Your task to perform on an android device: Is it going to rain today? Image 0: 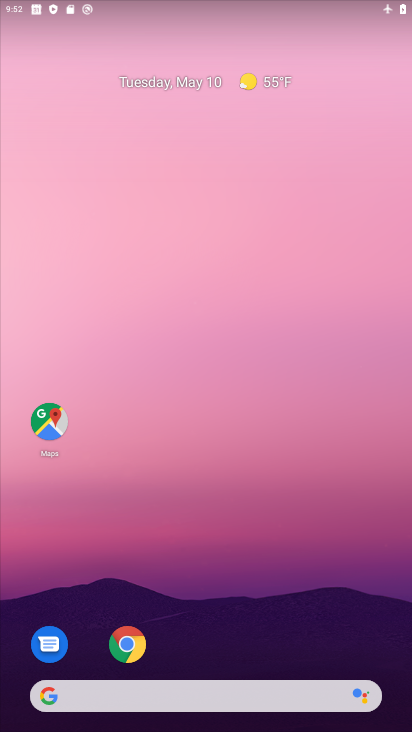
Step 0: drag from (334, 621) to (290, 332)
Your task to perform on an android device: Is it going to rain today? Image 1: 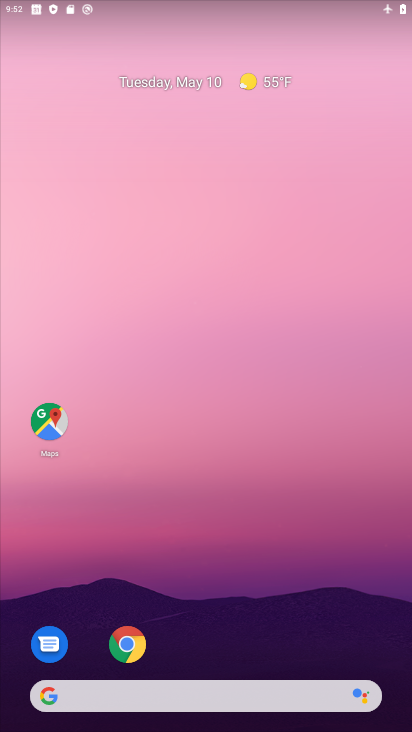
Step 1: drag from (300, 625) to (308, 351)
Your task to perform on an android device: Is it going to rain today? Image 2: 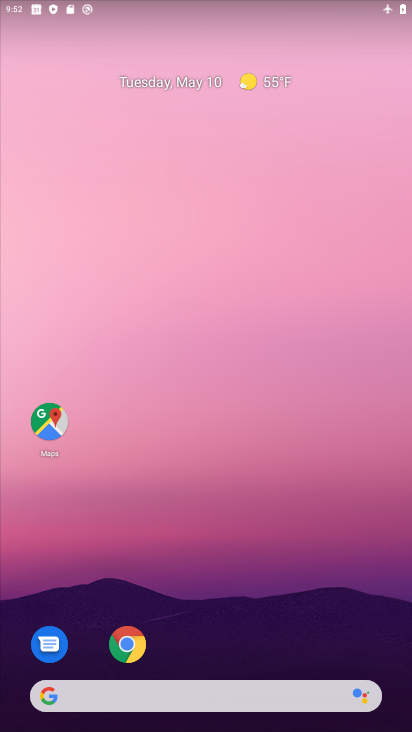
Step 2: drag from (254, 501) to (294, 230)
Your task to perform on an android device: Is it going to rain today? Image 3: 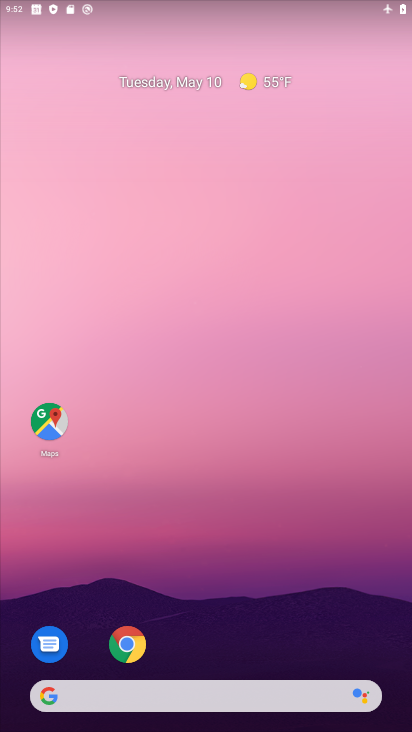
Step 3: drag from (269, 653) to (298, 141)
Your task to perform on an android device: Is it going to rain today? Image 4: 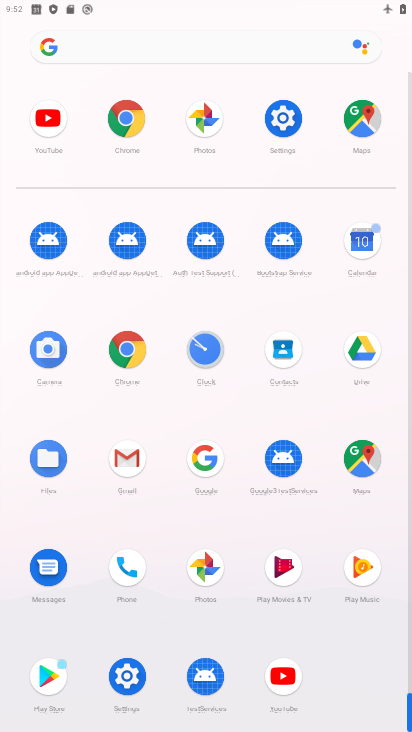
Step 4: click (208, 467)
Your task to perform on an android device: Is it going to rain today? Image 5: 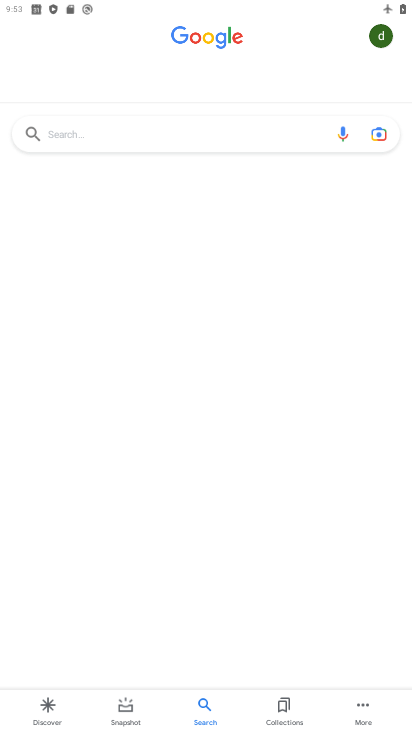
Step 5: click (170, 133)
Your task to perform on an android device: Is it going to rain today? Image 6: 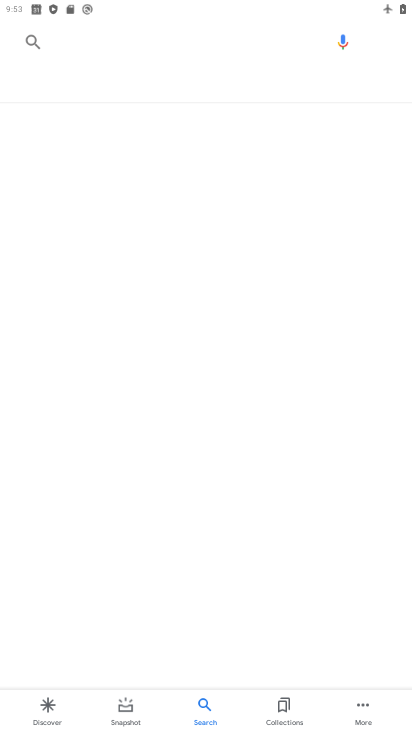
Step 6: click (160, 140)
Your task to perform on an android device: Is it going to rain today? Image 7: 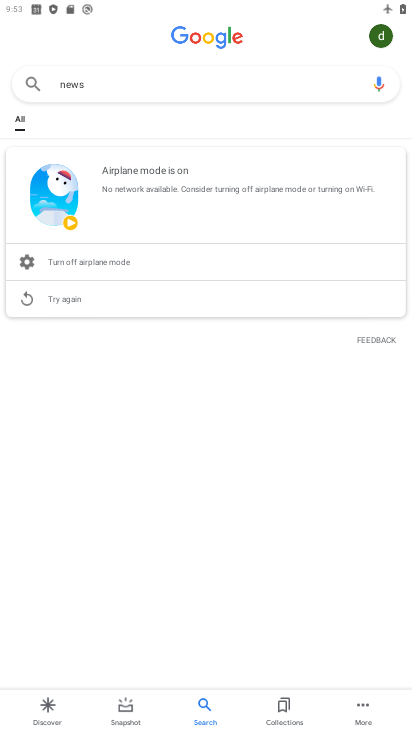
Step 7: click (170, 82)
Your task to perform on an android device: Is it going to rain today? Image 8: 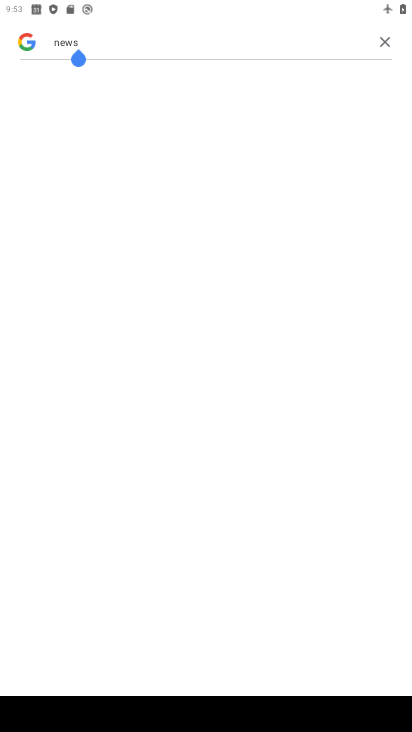
Step 8: task complete